Your task to perform on an android device: turn on the 24-hour format for clock Image 0: 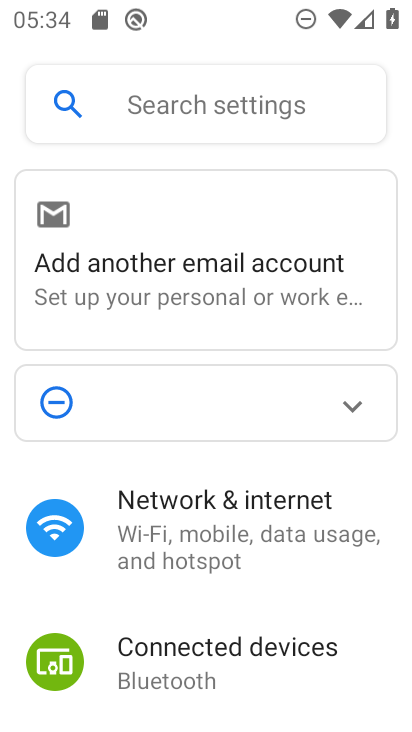
Step 0: press back button
Your task to perform on an android device: turn on the 24-hour format for clock Image 1: 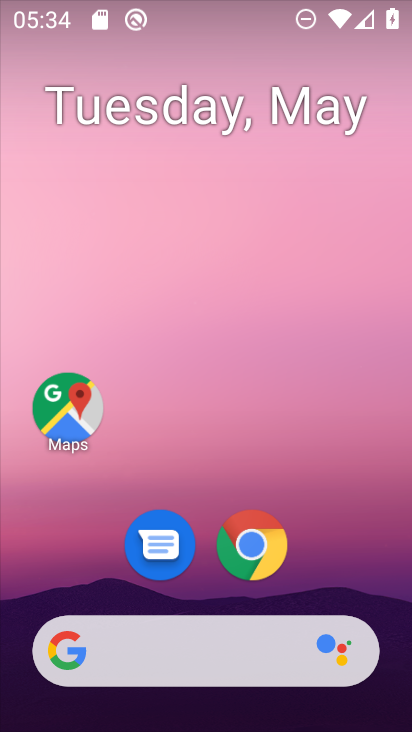
Step 1: drag from (320, 538) to (256, 11)
Your task to perform on an android device: turn on the 24-hour format for clock Image 2: 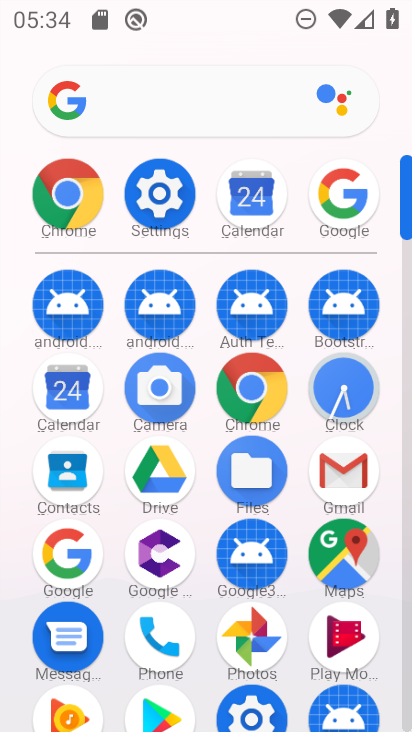
Step 2: drag from (0, 569) to (17, 255)
Your task to perform on an android device: turn on the 24-hour format for clock Image 3: 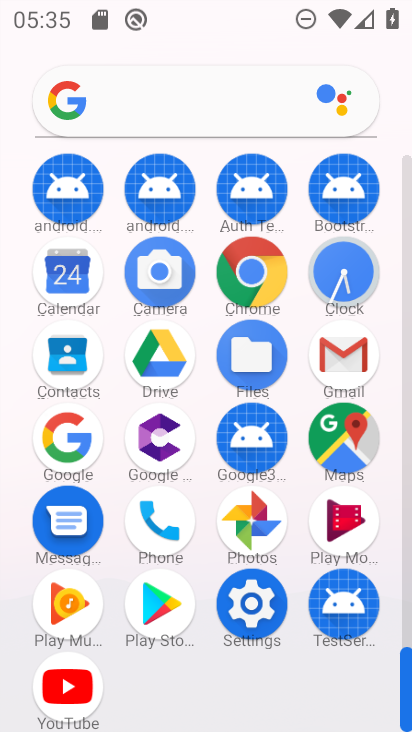
Step 3: click (340, 272)
Your task to perform on an android device: turn on the 24-hour format for clock Image 4: 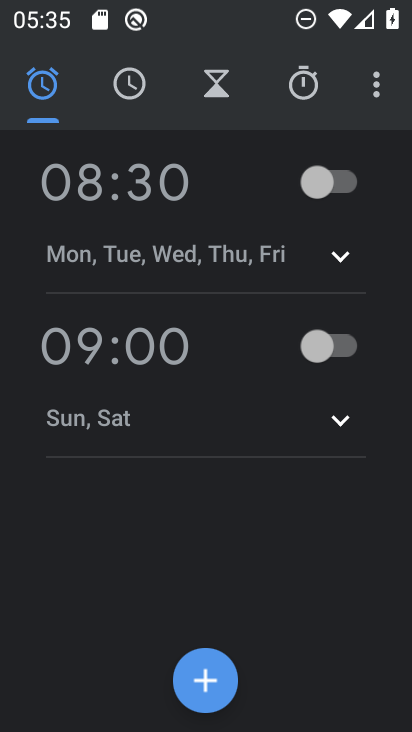
Step 4: drag from (378, 97) to (249, 171)
Your task to perform on an android device: turn on the 24-hour format for clock Image 5: 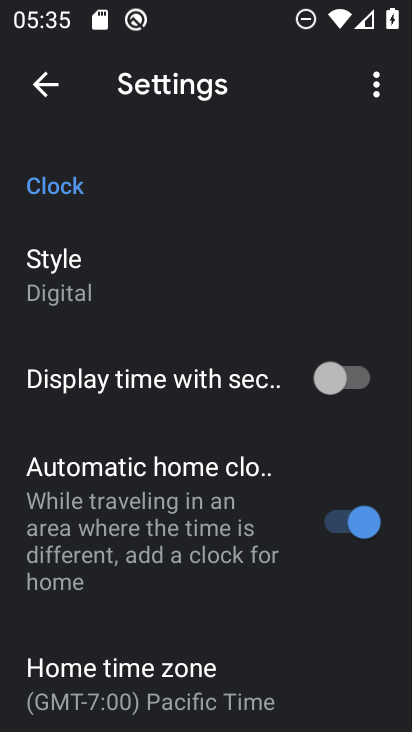
Step 5: drag from (182, 575) to (197, 160)
Your task to perform on an android device: turn on the 24-hour format for clock Image 6: 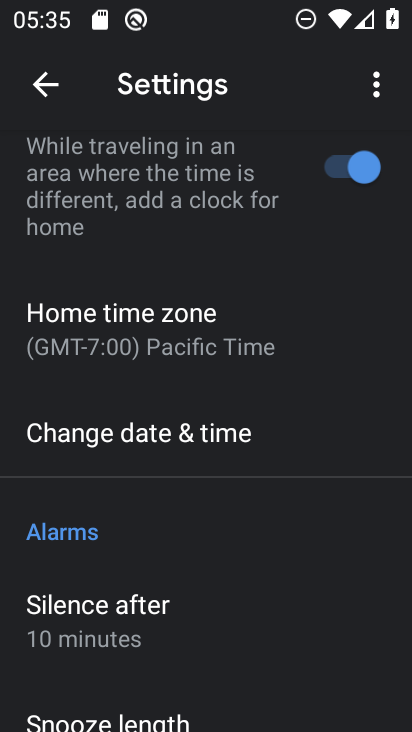
Step 6: click (168, 421)
Your task to perform on an android device: turn on the 24-hour format for clock Image 7: 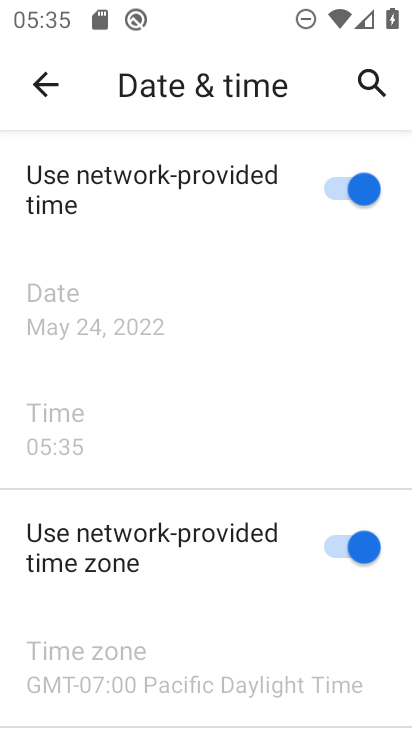
Step 7: task complete